Your task to perform on an android device: Search for a new perfume Image 0: 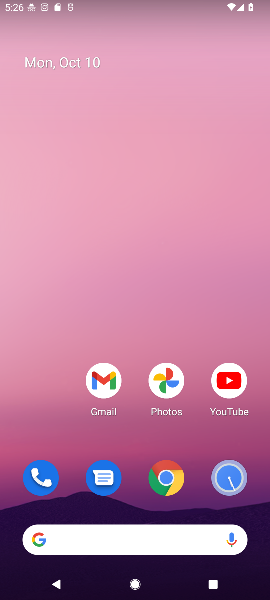
Step 0: click (169, 478)
Your task to perform on an android device: Search for a new perfume Image 1: 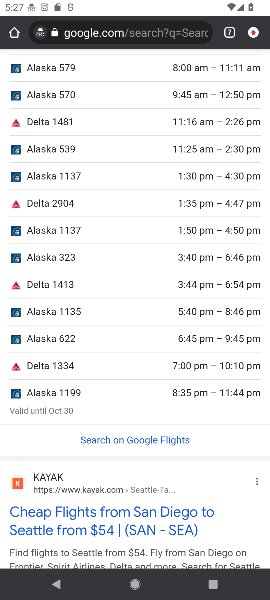
Step 1: click (117, 26)
Your task to perform on an android device: Search for a new perfume Image 2: 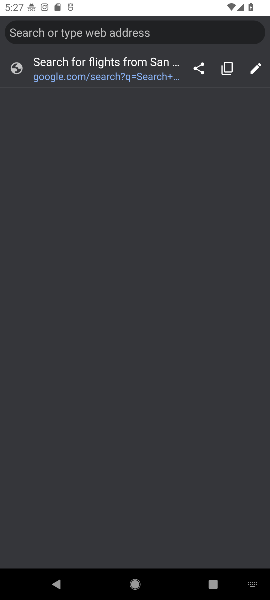
Step 2: type "new perfume"
Your task to perform on an android device: Search for a new perfume Image 3: 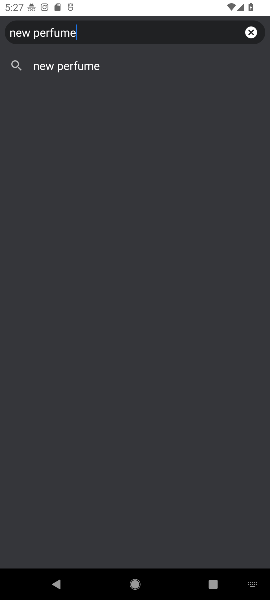
Step 3: click (101, 70)
Your task to perform on an android device: Search for a new perfume Image 4: 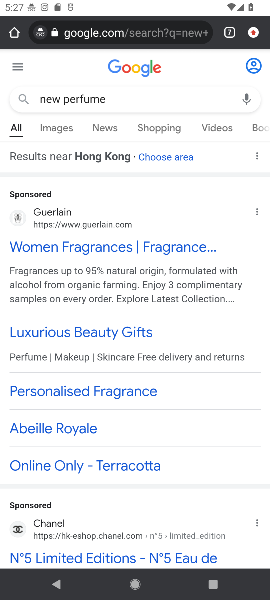
Step 4: click (152, 134)
Your task to perform on an android device: Search for a new perfume Image 5: 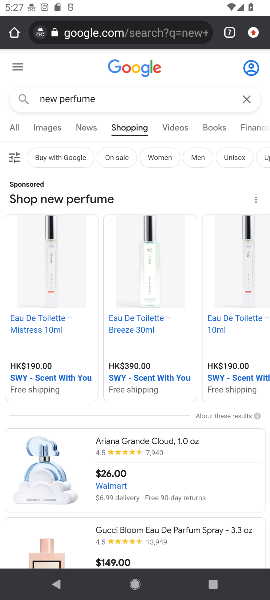
Step 5: click (54, 255)
Your task to perform on an android device: Search for a new perfume Image 6: 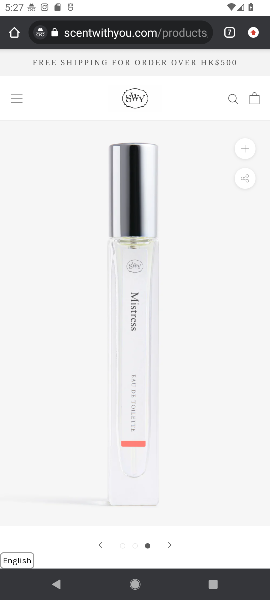
Step 6: task complete